Your task to perform on an android device: Go to calendar. Show me events next week Image 0: 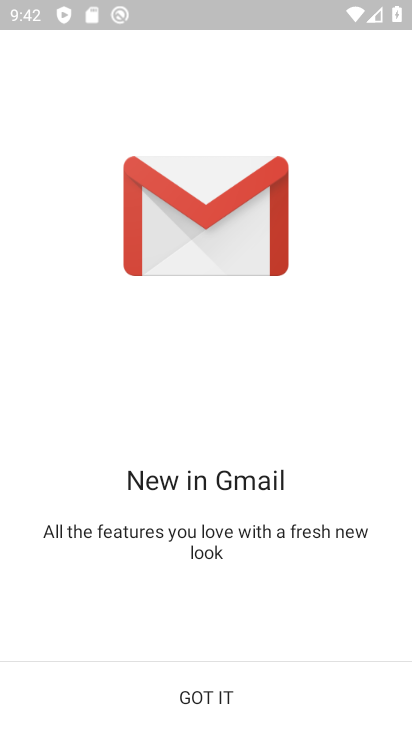
Step 0: press home button
Your task to perform on an android device: Go to calendar. Show me events next week Image 1: 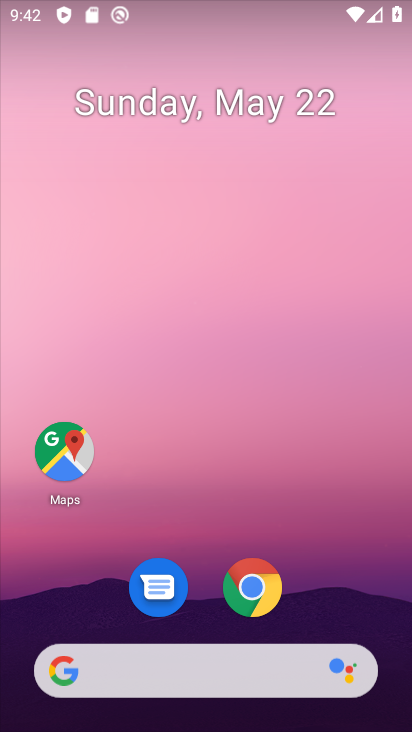
Step 1: drag from (237, 498) to (317, 26)
Your task to perform on an android device: Go to calendar. Show me events next week Image 2: 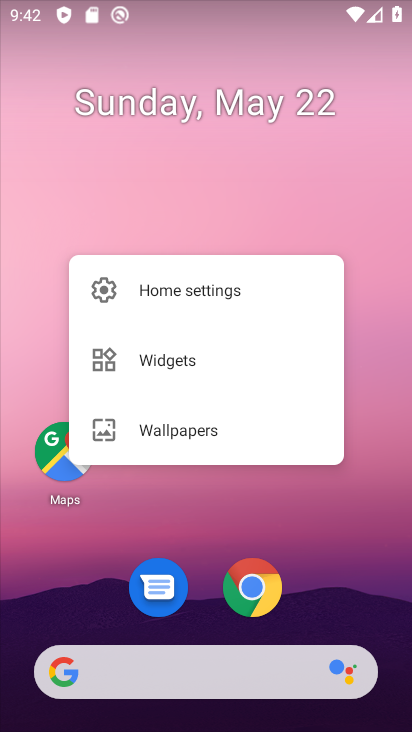
Step 2: click (190, 513)
Your task to perform on an android device: Go to calendar. Show me events next week Image 3: 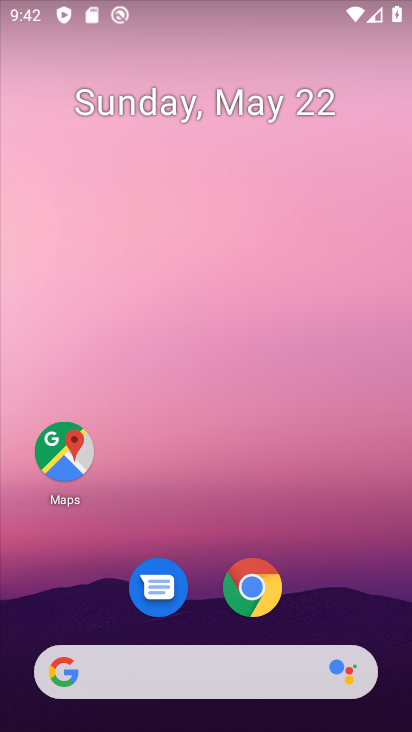
Step 3: drag from (190, 509) to (235, 33)
Your task to perform on an android device: Go to calendar. Show me events next week Image 4: 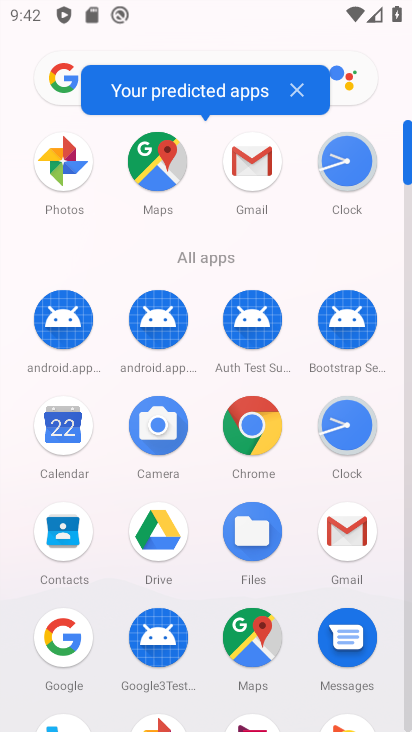
Step 4: click (58, 420)
Your task to perform on an android device: Go to calendar. Show me events next week Image 5: 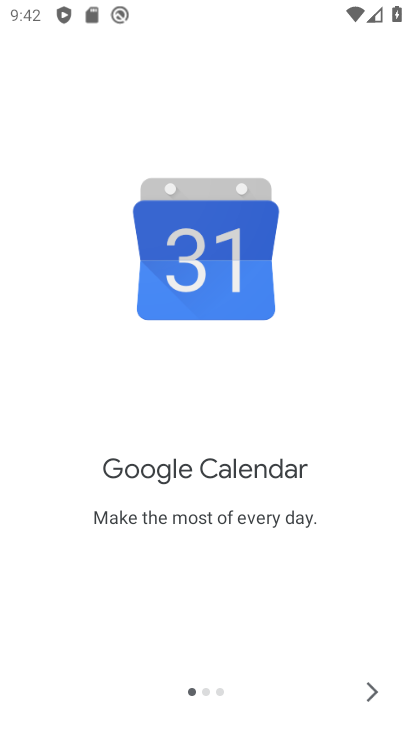
Step 5: click (370, 684)
Your task to perform on an android device: Go to calendar. Show me events next week Image 6: 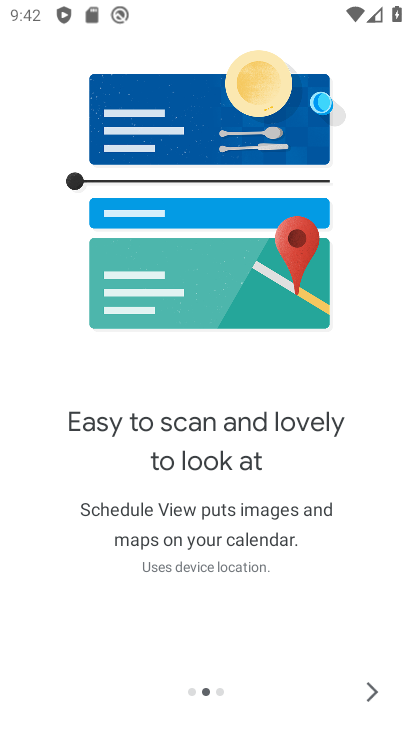
Step 6: click (370, 684)
Your task to perform on an android device: Go to calendar. Show me events next week Image 7: 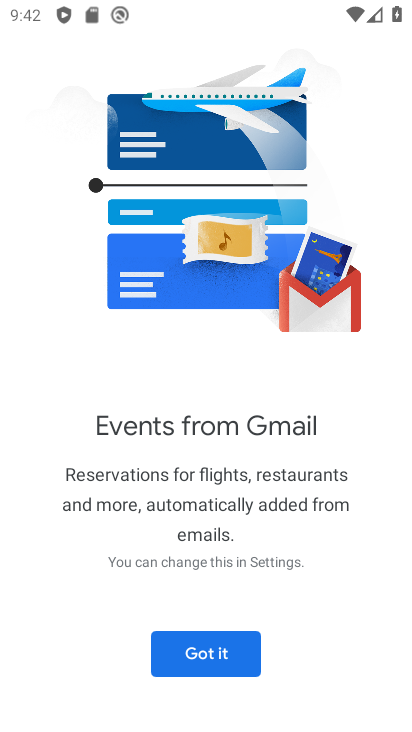
Step 7: click (239, 657)
Your task to perform on an android device: Go to calendar. Show me events next week Image 8: 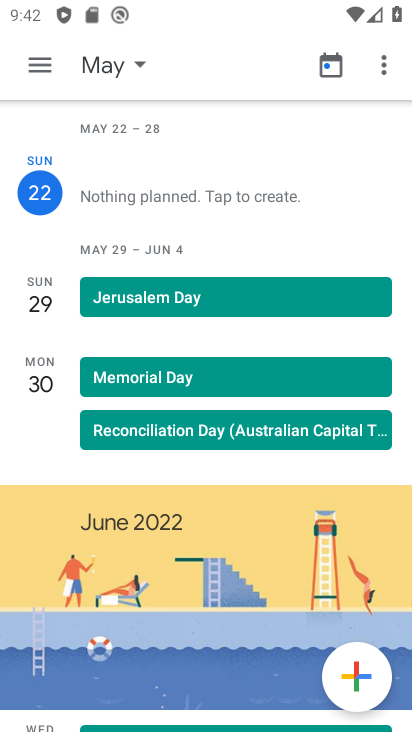
Step 8: drag from (229, 301) to (229, 124)
Your task to perform on an android device: Go to calendar. Show me events next week Image 9: 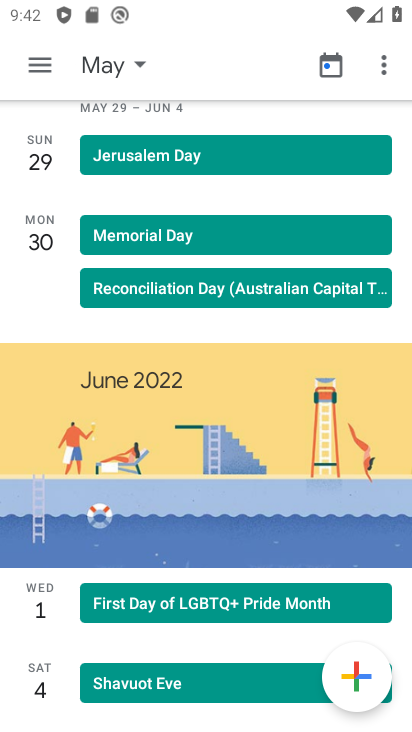
Step 9: drag from (182, 447) to (213, 143)
Your task to perform on an android device: Go to calendar. Show me events next week Image 10: 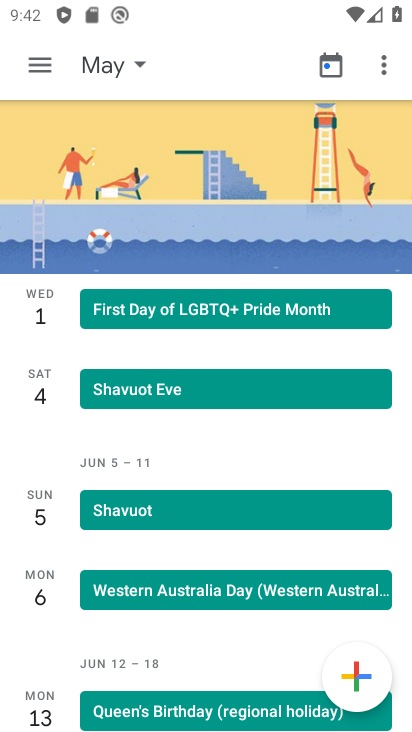
Step 10: drag from (203, 210) to (167, 609)
Your task to perform on an android device: Go to calendar. Show me events next week Image 11: 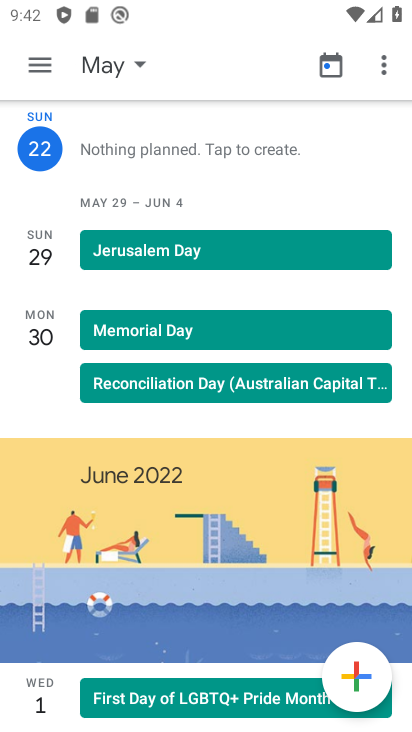
Step 11: click (39, 67)
Your task to perform on an android device: Go to calendar. Show me events next week Image 12: 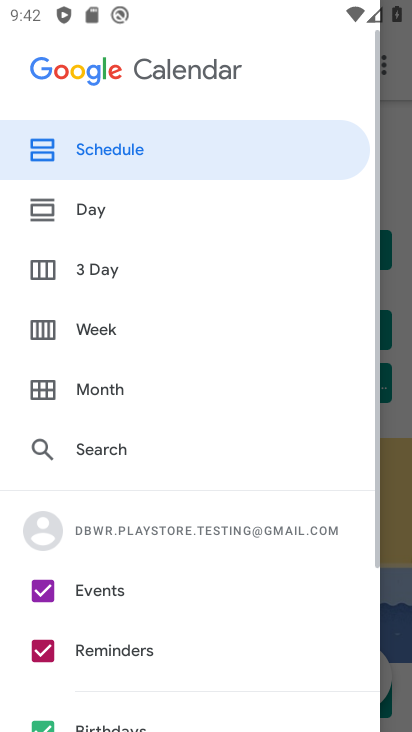
Step 12: click (36, 325)
Your task to perform on an android device: Go to calendar. Show me events next week Image 13: 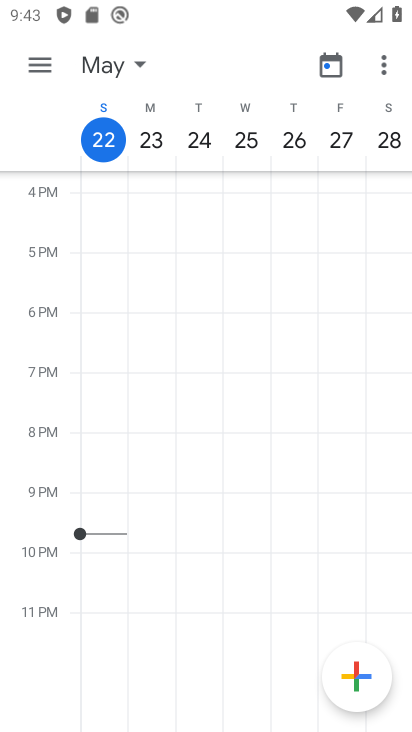
Step 13: task complete